Your task to perform on an android device: check android version Image 0: 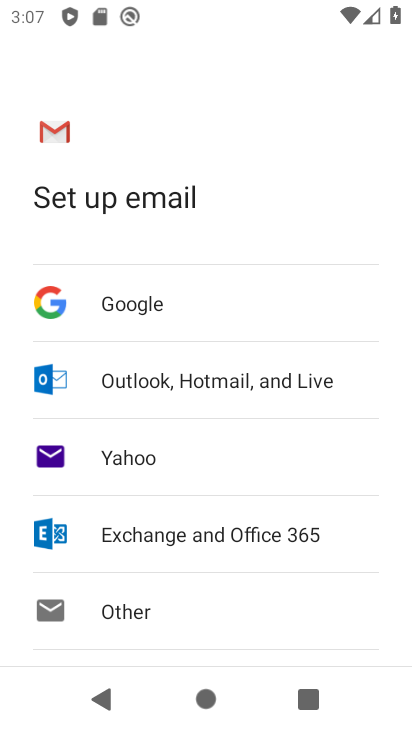
Step 0: press home button
Your task to perform on an android device: check android version Image 1: 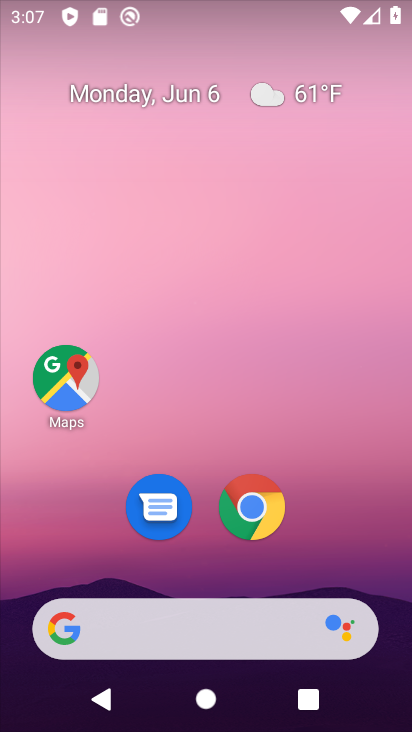
Step 1: drag from (209, 587) to (209, 168)
Your task to perform on an android device: check android version Image 2: 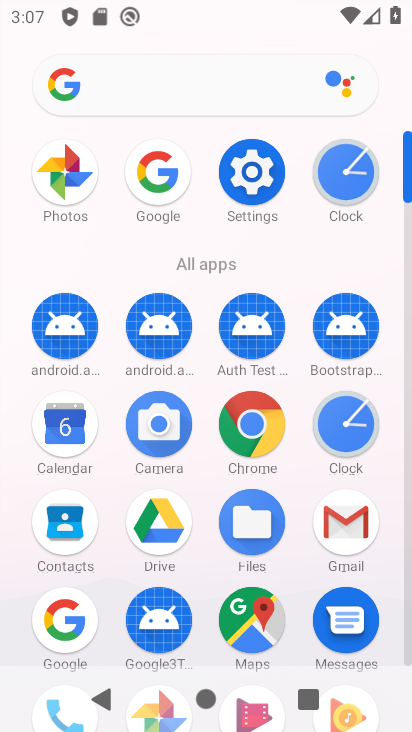
Step 2: click (244, 185)
Your task to perform on an android device: check android version Image 3: 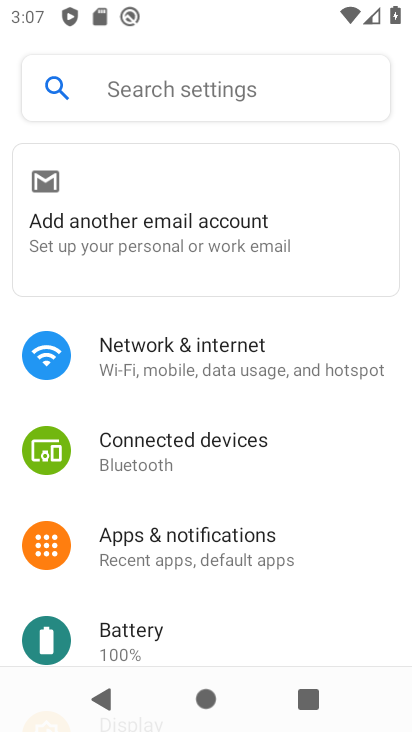
Step 3: drag from (214, 551) to (248, 283)
Your task to perform on an android device: check android version Image 4: 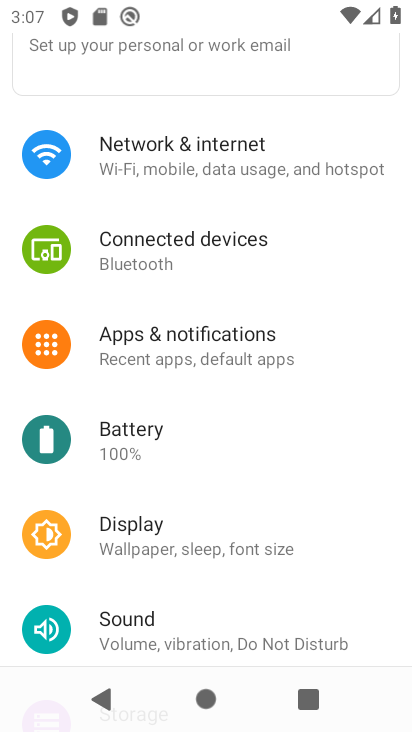
Step 4: drag from (242, 572) to (277, 227)
Your task to perform on an android device: check android version Image 5: 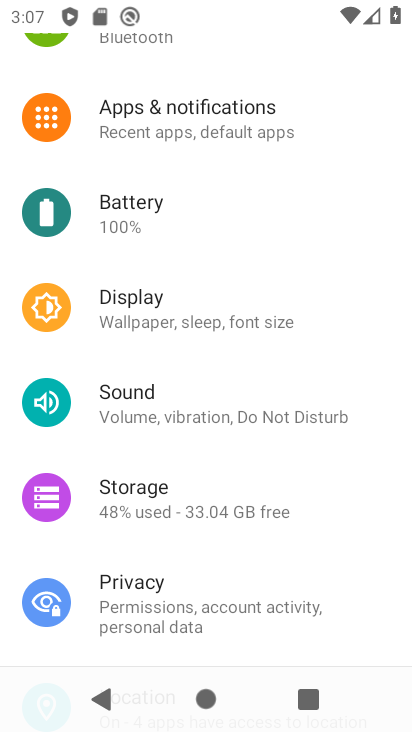
Step 5: drag from (244, 559) to (254, 252)
Your task to perform on an android device: check android version Image 6: 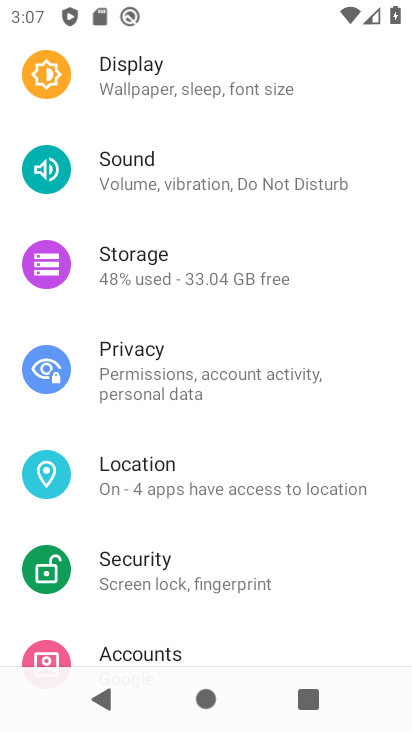
Step 6: drag from (219, 546) to (246, 256)
Your task to perform on an android device: check android version Image 7: 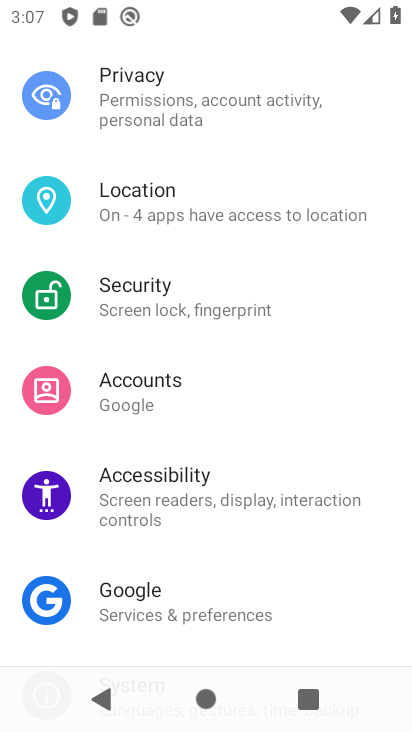
Step 7: drag from (221, 553) to (253, 227)
Your task to perform on an android device: check android version Image 8: 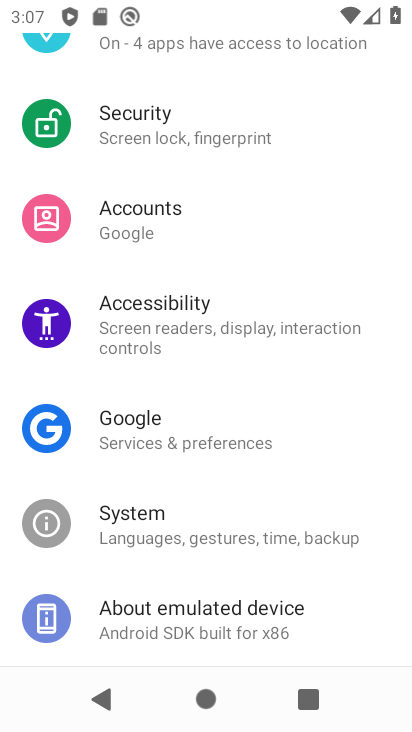
Step 8: drag from (196, 595) to (219, 305)
Your task to perform on an android device: check android version Image 9: 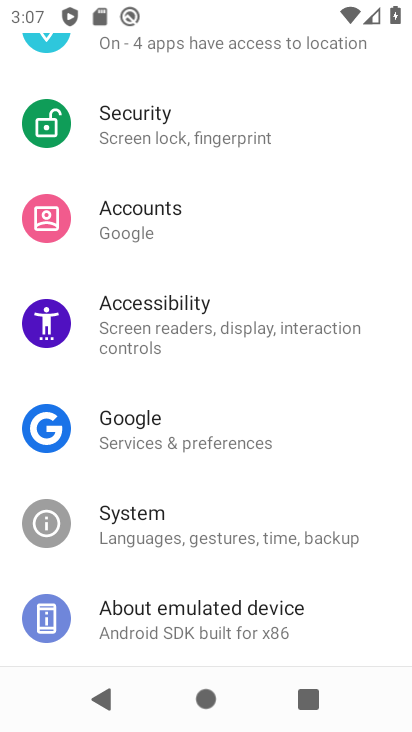
Step 9: click (158, 632)
Your task to perform on an android device: check android version Image 10: 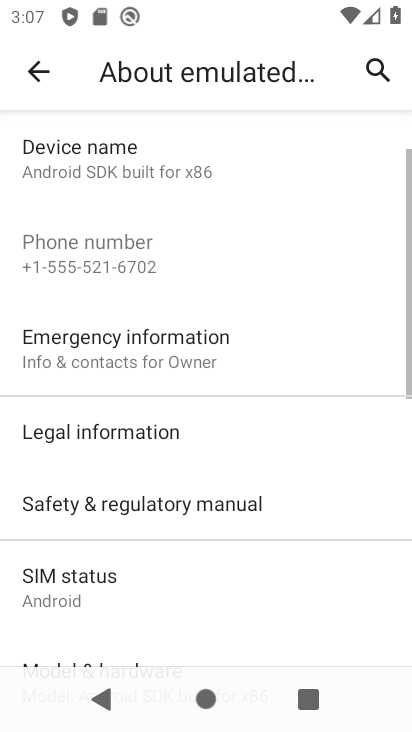
Step 10: drag from (183, 581) to (221, 312)
Your task to perform on an android device: check android version Image 11: 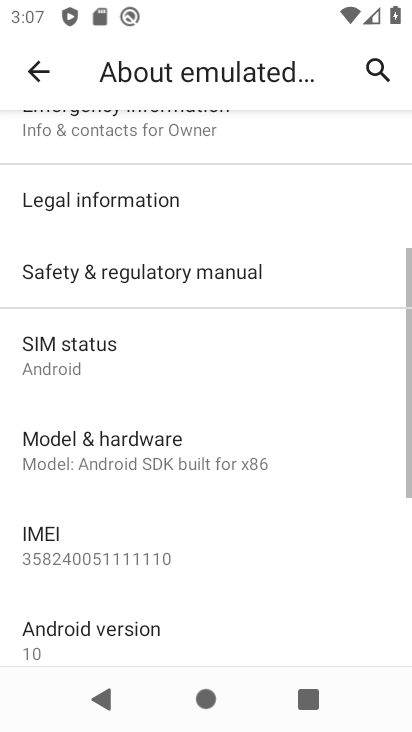
Step 11: click (171, 636)
Your task to perform on an android device: check android version Image 12: 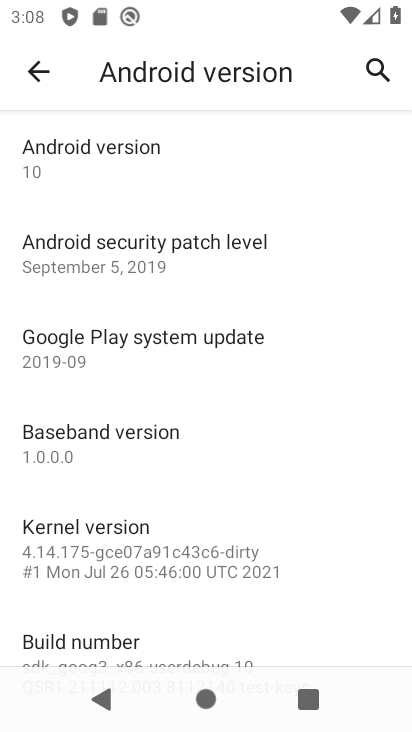
Step 12: click (145, 175)
Your task to perform on an android device: check android version Image 13: 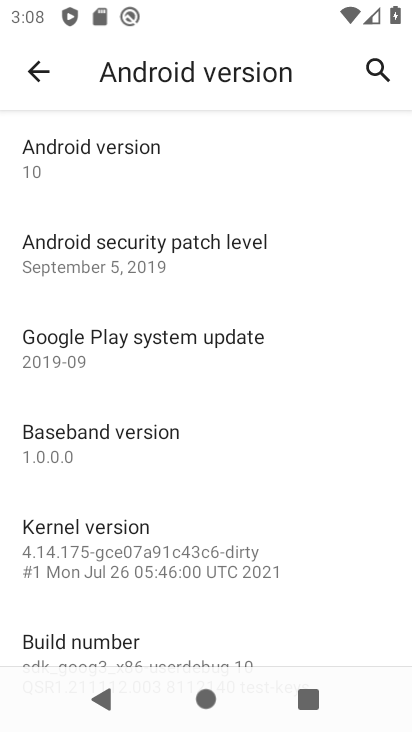
Step 13: click (165, 175)
Your task to perform on an android device: check android version Image 14: 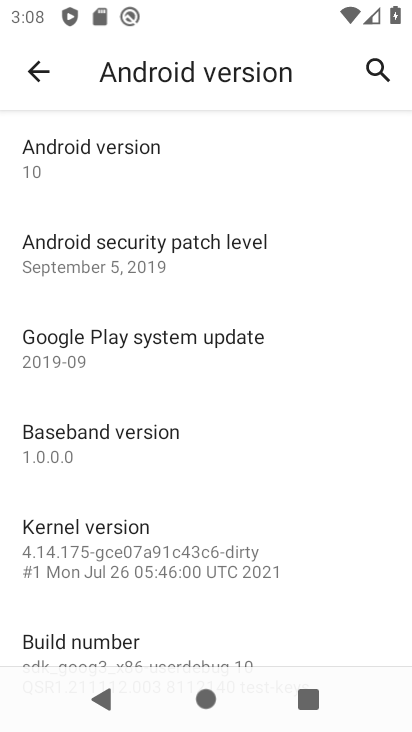
Step 14: task complete